Your task to perform on an android device: Open the web browser Image 0: 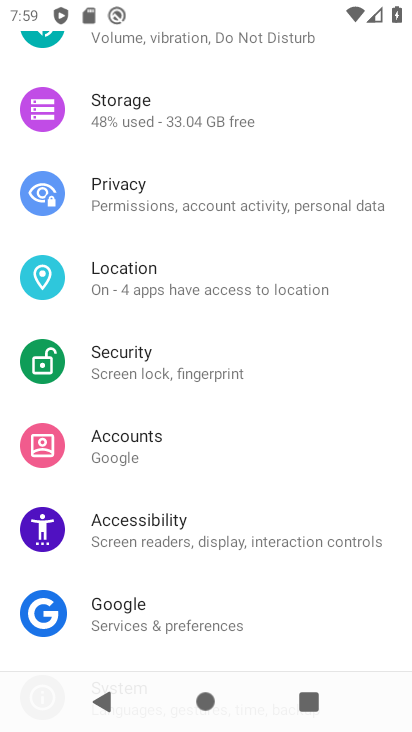
Step 0: press home button
Your task to perform on an android device: Open the web browser Image 1: 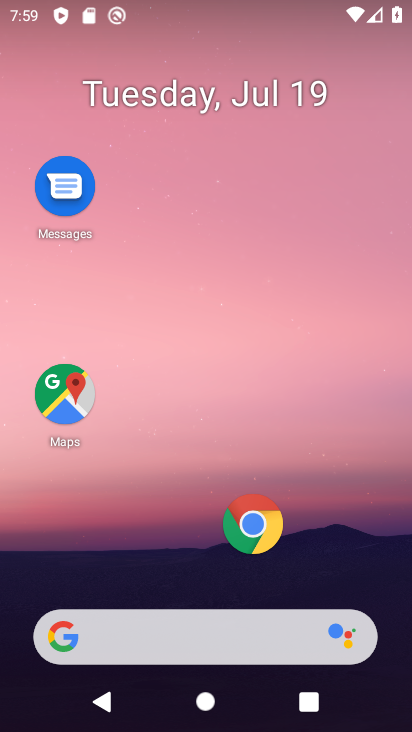
Step 1: click (243, 623)
Your task to perform on an android device: Open the web browser Image 2: 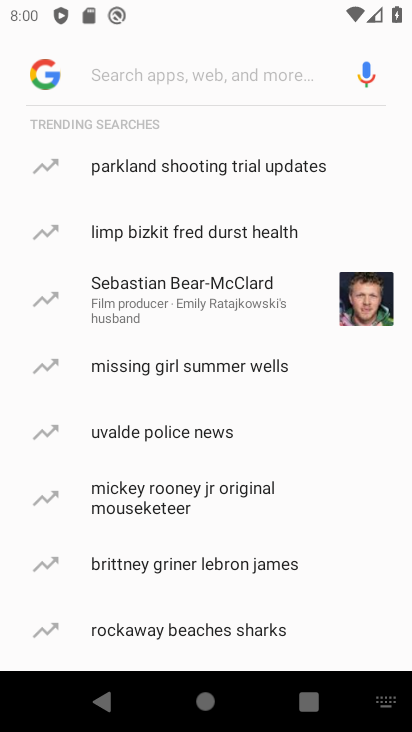
Step 2: task complete